Your task to perform on an android device: Search for Mexican restaurants on Maps Image 0: 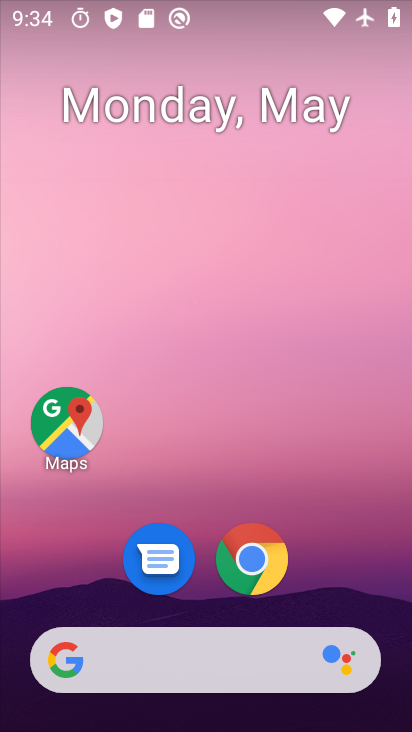
Step 0: click (70, 430)
Your task to perform on an android device: Search for Mexican restaurants on Maps Image 1: 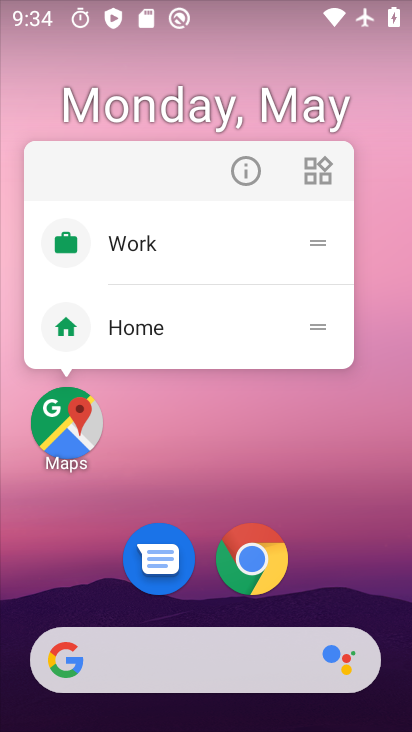
Step 1: click (68, 427)
Your task to perform on an android device: Search for Mexican restaurants on Maps Image 2: 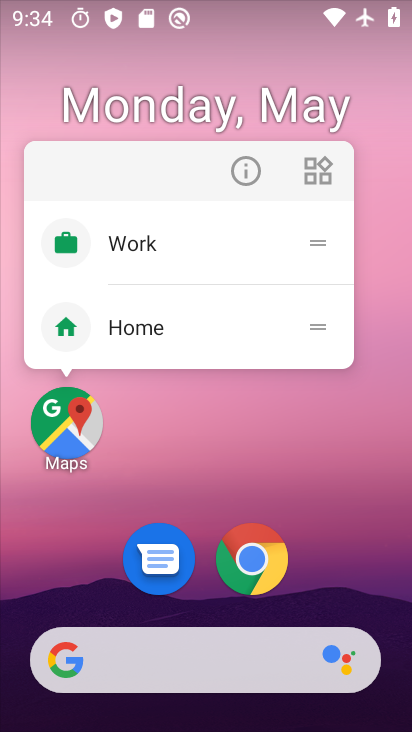
Step 2: click (68, 427)
Your task to perform on an android device: Search for Mexican restaurants on Maps Image 3: 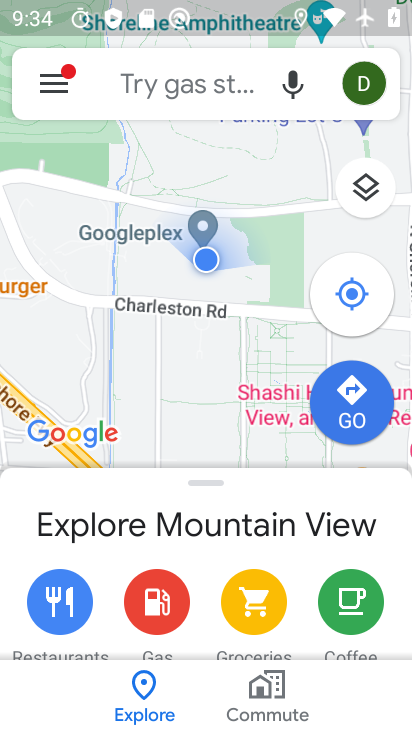
Step 3: click (141, 74)
Your task to perform on an android device: Search for Mexican restaurants on Maps Image 4: 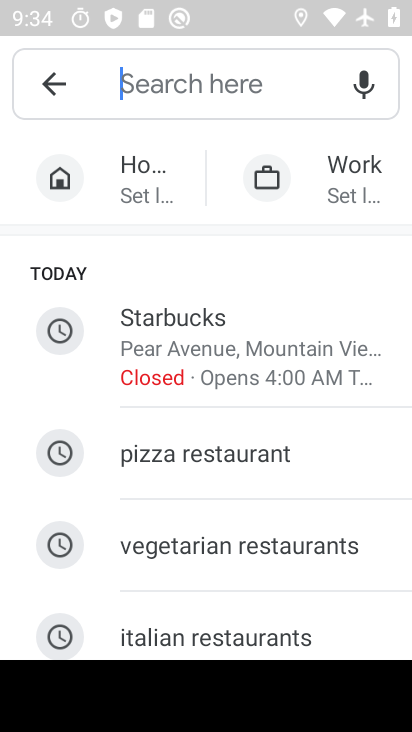
Step 4: type "mexican restaurants"
Your task to perform on an android device: Search for Mexican restaurants on Maps Image 5: 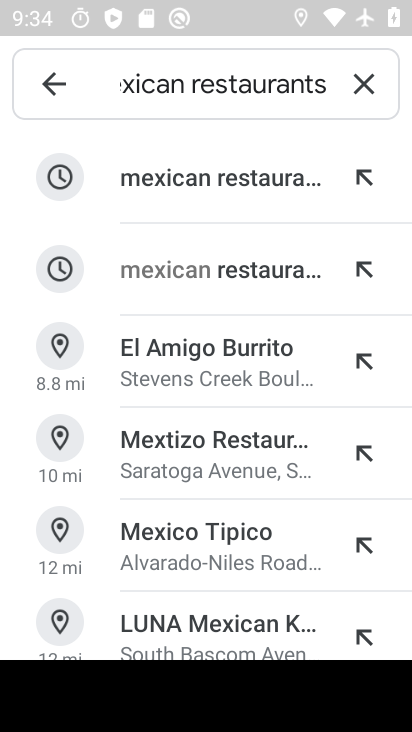
Step 5: click (171, 175)
Your task to perform on an android device: Search for Mexican restaurants on Maps Image 6: 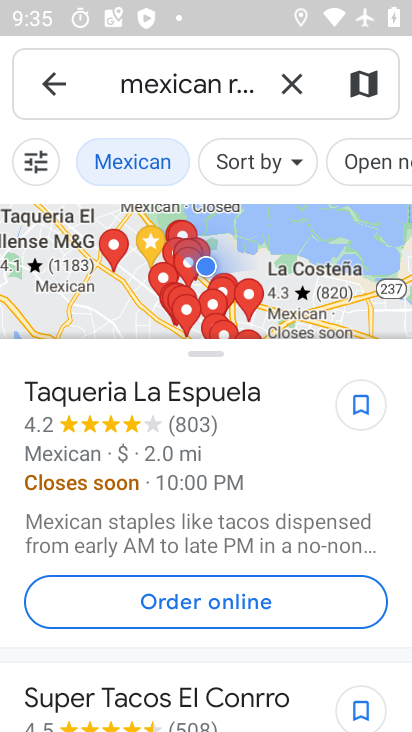
Step 6: task complete